Your task to perform on an android device: uninstall "DuckDuckGo Privacy Browser" Image 0: 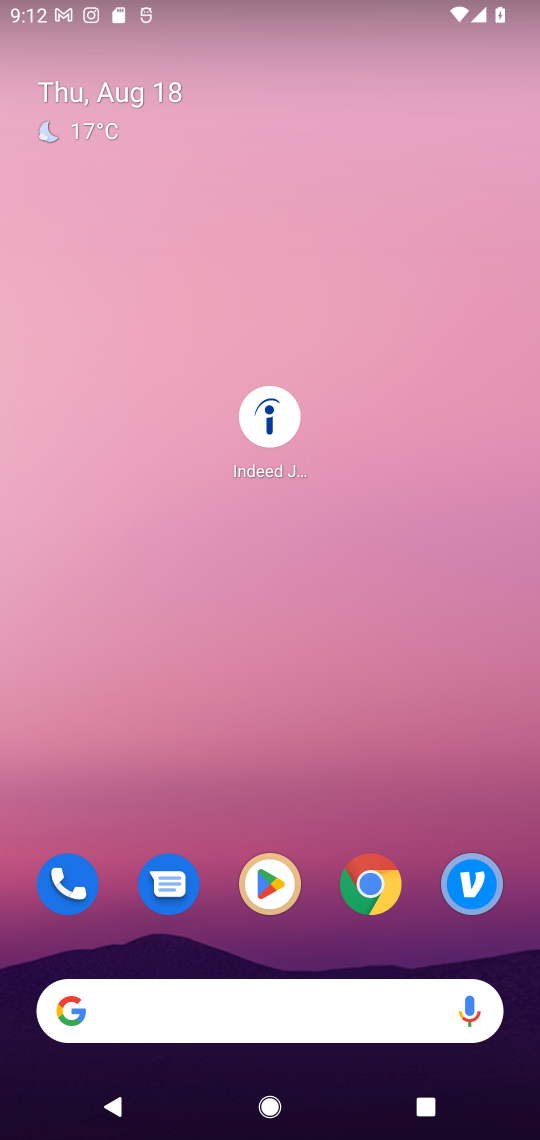
Step 0: drag from (232, 1026) to (251, 20)
Your task to perform on an android device: uninstall "DuckDuckGo Privacy Browser" Image 1: 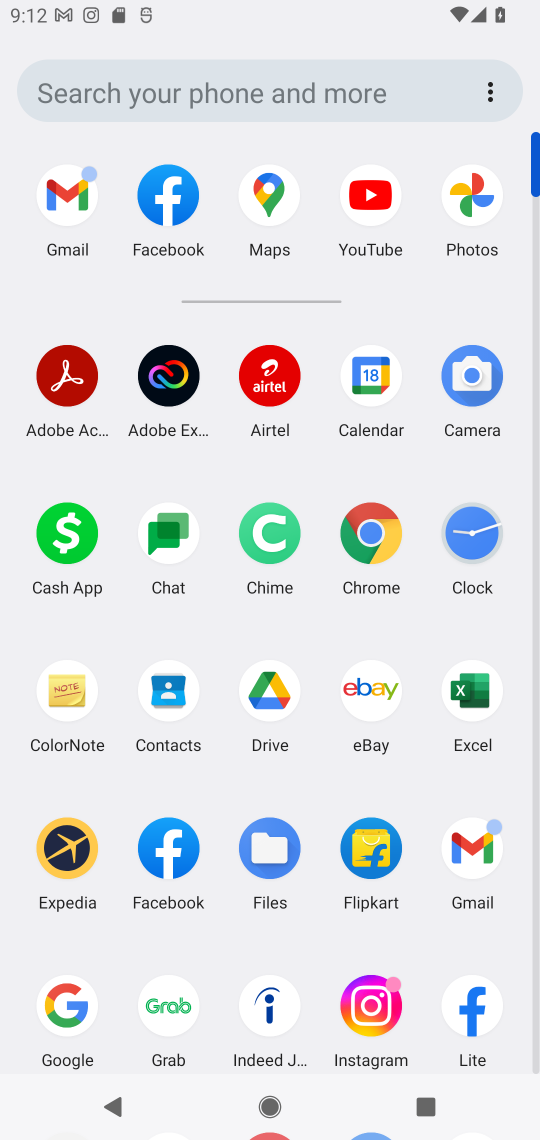
Step 1: drag from (213, 967) to (250, 320)
Your task to perform on an android device: uninstall "DuckDuckGo Privacy Browser" Image 2: 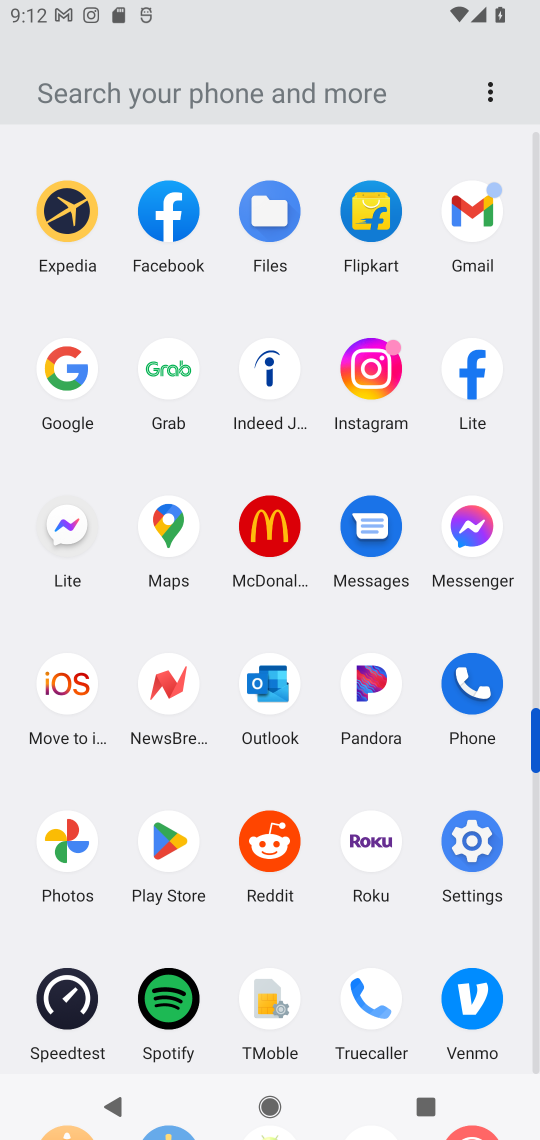
Step 2: click (171, 850)
Your task to perform on an android device: uninstall "DuckDuckGo Privacy Browser" Image 3: 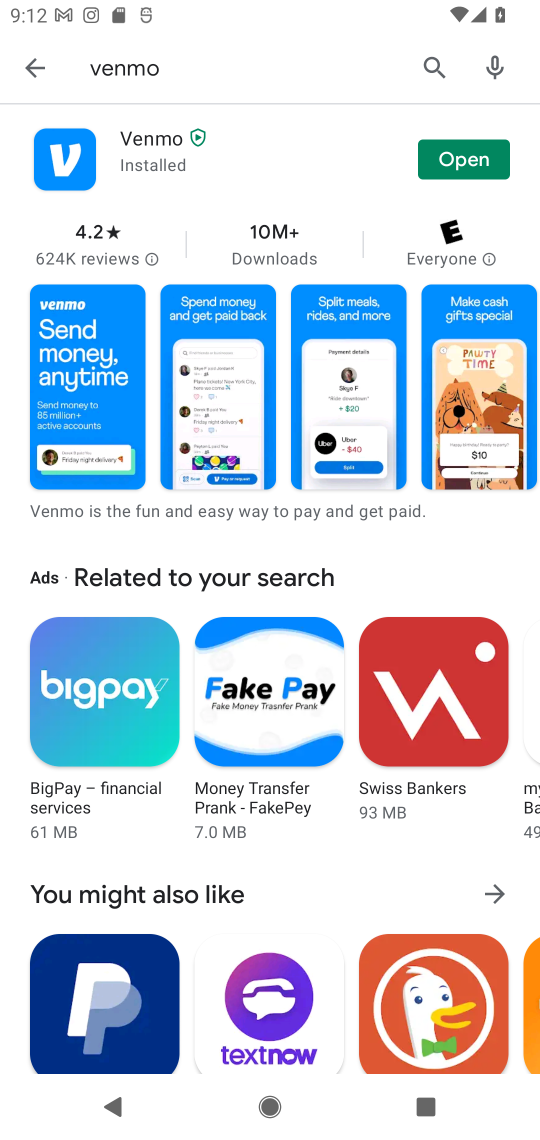
Step 3: press back button
Your task to perform on an android device: uninstall "DuckDuckGo Privacy Browser" Image 4: 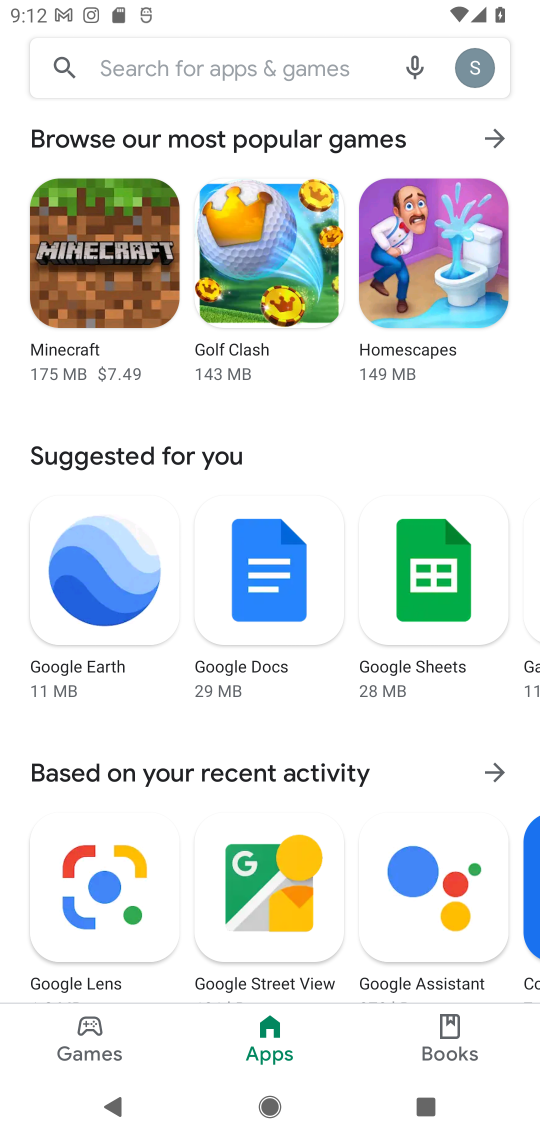
Step 4: click (249, 74)
Your task to perform on an android device: uninstall "DuckDuckGo Privacy Browser" Image 5: 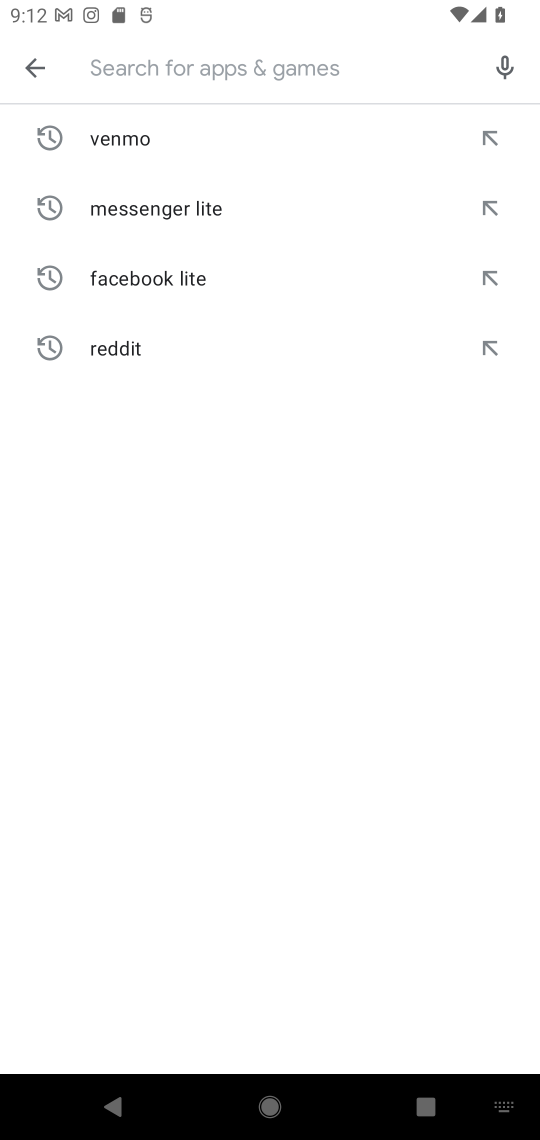
Step 5: type "DuckDuckGo Privacy Browser"
Your task to perform on an android device: uninstall "DuckDuckGo Privacy Browser" Image 6: 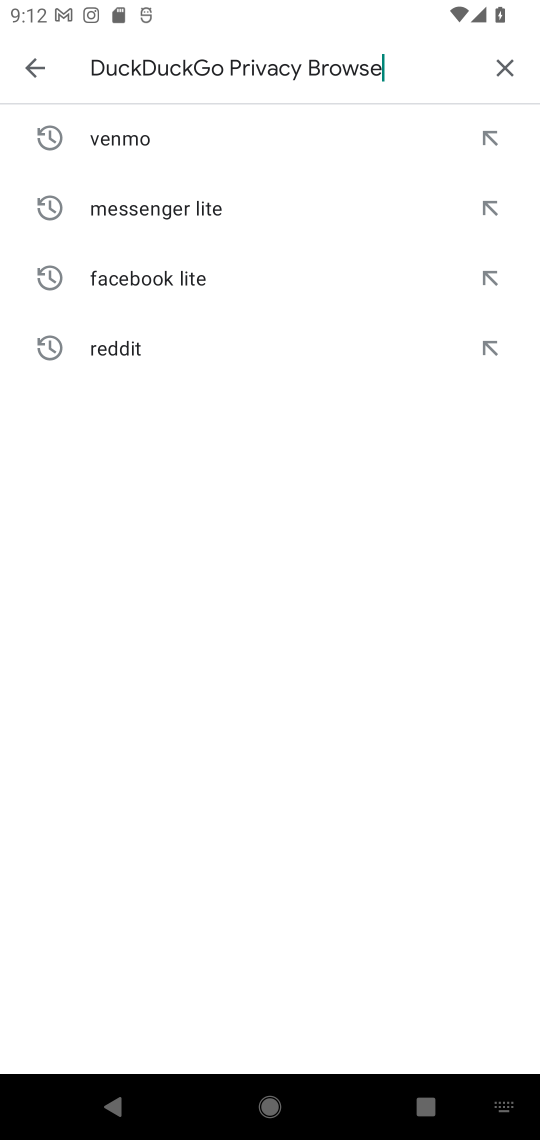
Step 6: type ""
Your task to perform on an android device: uninstall "DuckDuckGo Privacy Browser" Image 7: 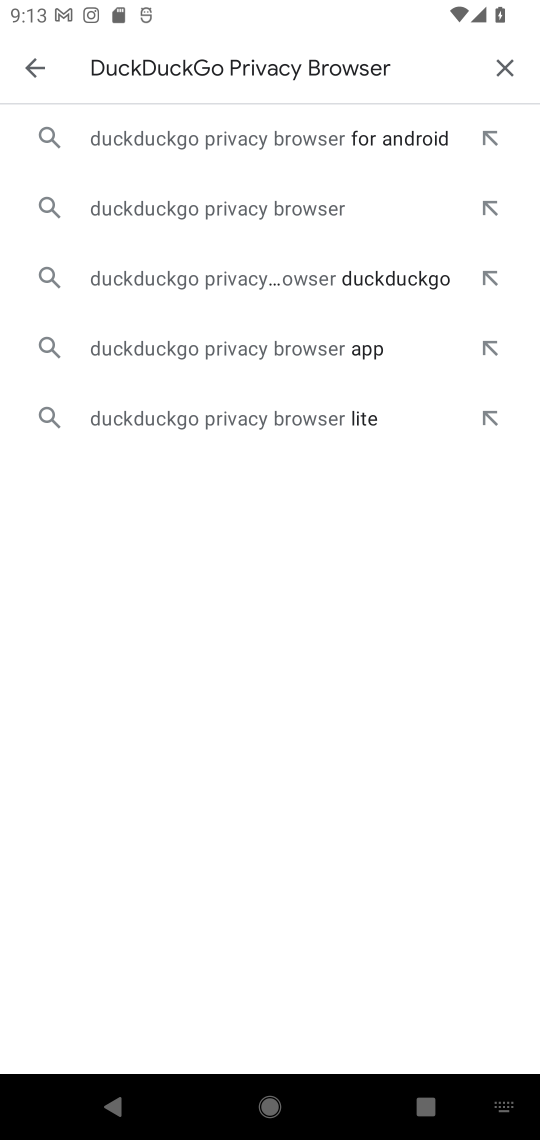
Step 7: click (269, 217)
Your task to perform on an android device: uninstall "DuckDuckGo Privacy Browser" Image 8: 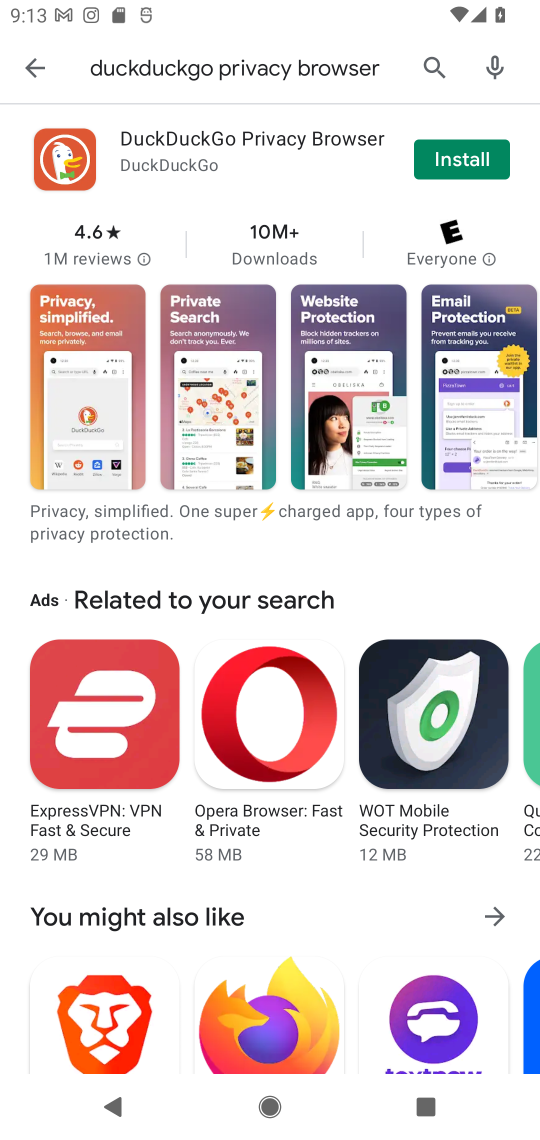
Step 8: task complete